Your task to perform on an android device: move a message to another label in the gmail app Image 0: 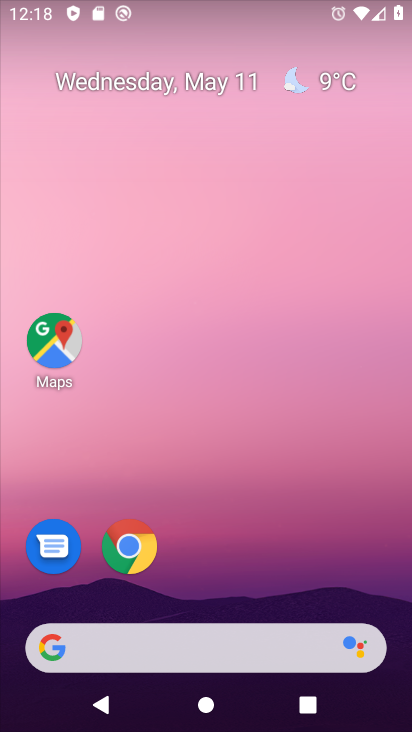
Step 0: drag from (198, 597) to (267, 265)
Your task to perform on an android device: move a message to another label in the gmail app Image 1: 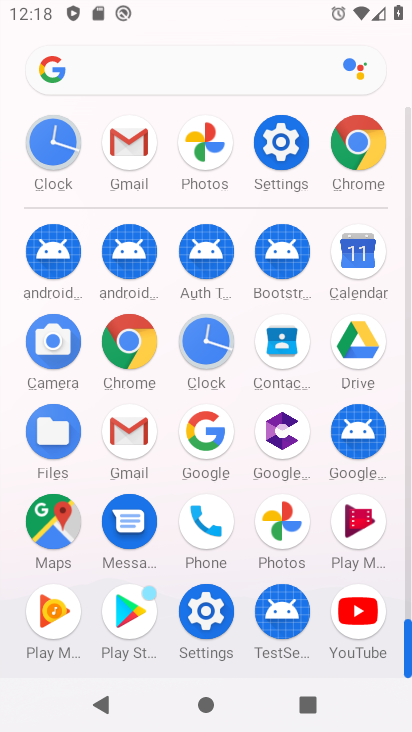
Step 1: click (122, 412)
Your task to perform on an android device: move a message to another label in the gmail app Image 2: 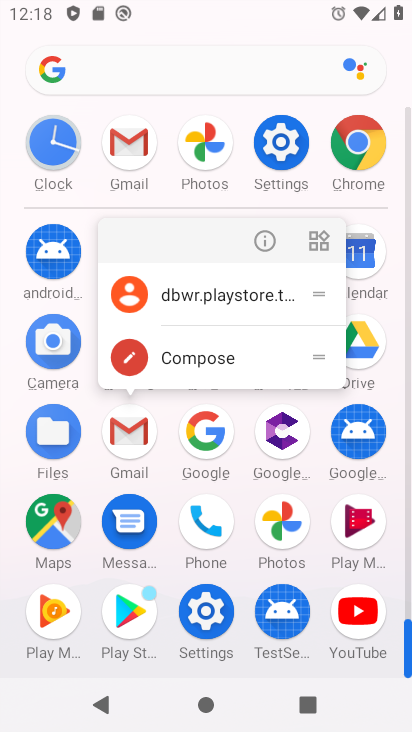
Step 2: click (263, 249)
Your task to perform on an android device: move a message to another label in the gmail app Image 3: 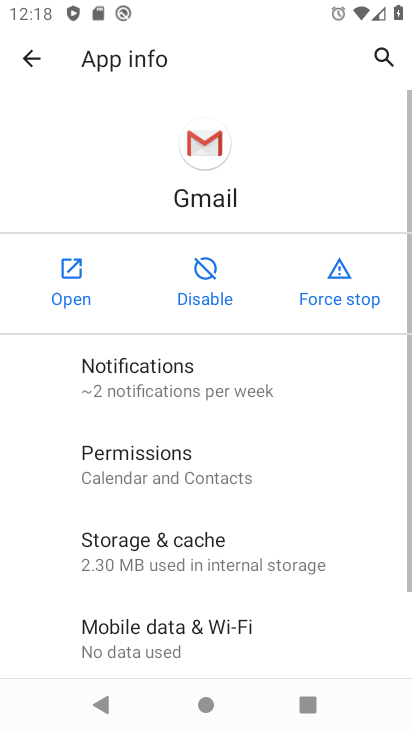
Step 3: click (66, 283)
Your task to perform on an android device: move a message to another label in the gmail app Image 4: 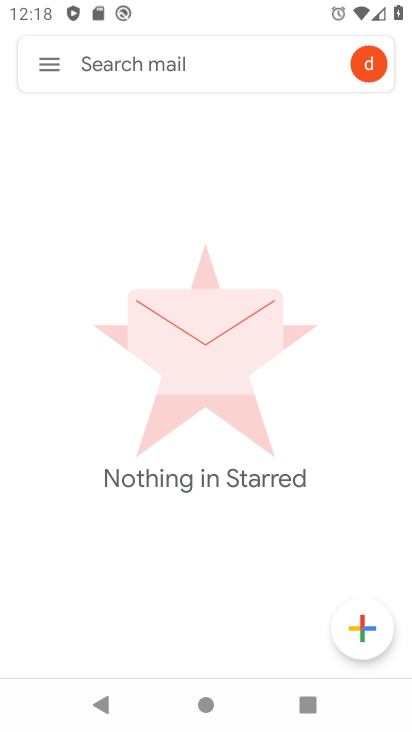
Step 4: drag from (180, 581) to (217, 223)
Your task to perform on an android device: move a message to another label in the gmail app Image 5: 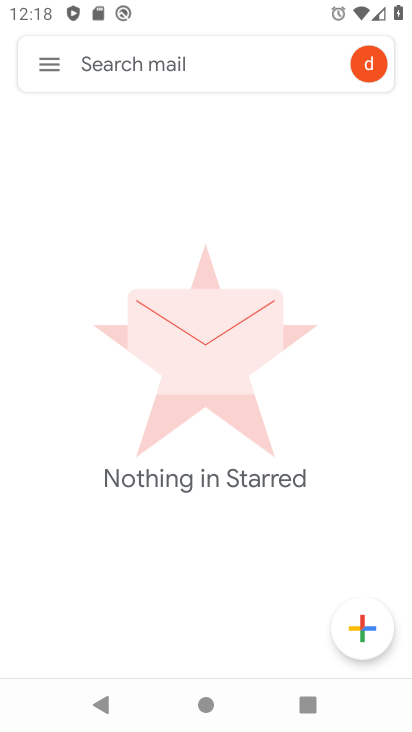
Step 5: drag from (193, 576) to (239, 191)
Your task to perform on an android device: move a message to another label in the gmail app Image 6: 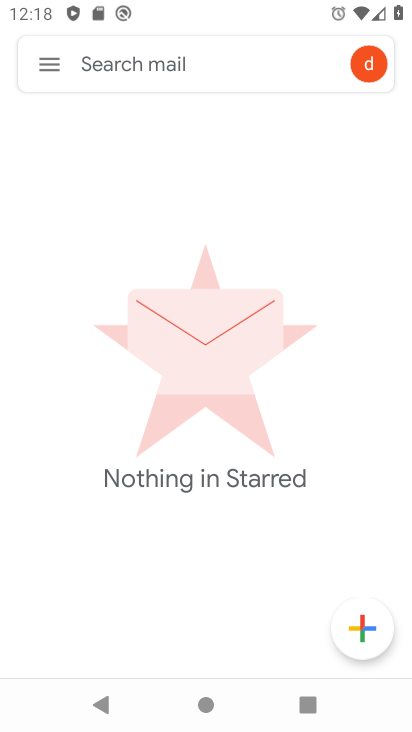
Step 6: click (46, 68)
Your task to perform on an android device: move a message to another label in the gmail app Image 7: 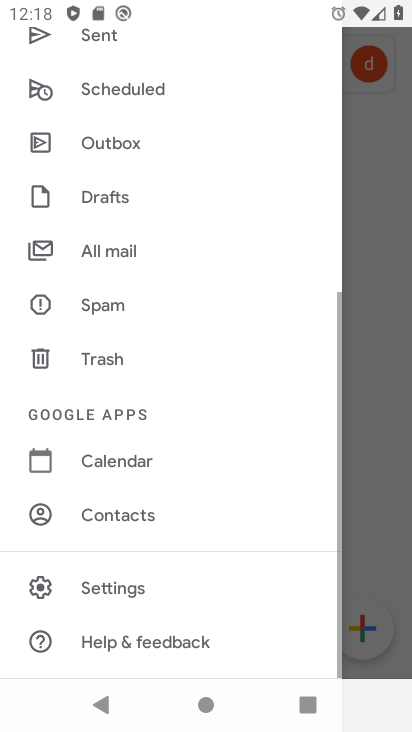
Step 7: task complete